Your task to perform on an android device: toggle location history Image 0: 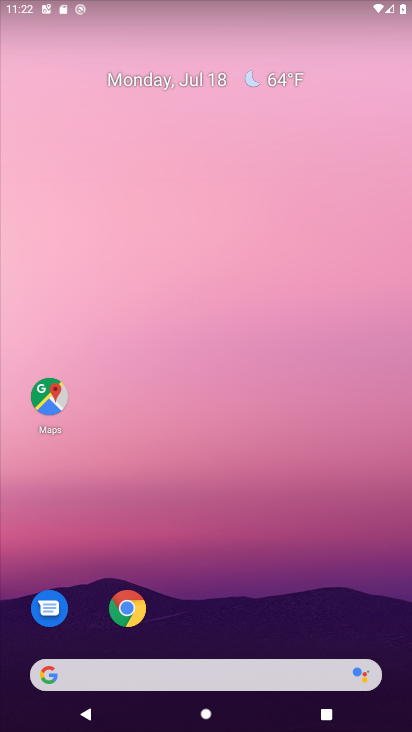
Step 0: drag from (275, 340) to (334, 23)
Your task to perform on an android device: toggle location history Image 1: 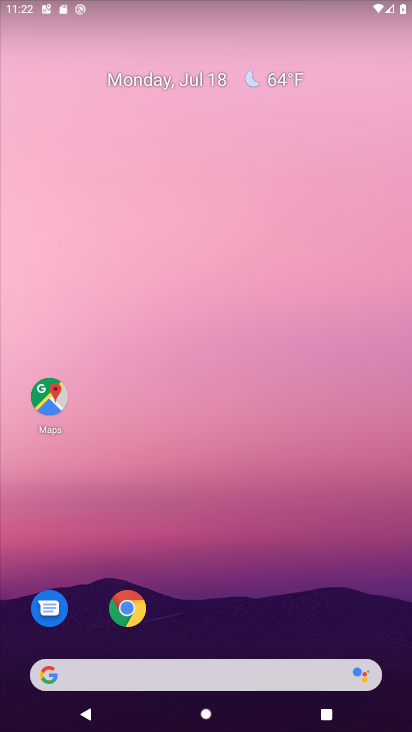
Step 1: drag from (229, 612) to (263, 36)
Your task to perform on an android device: toggle location history Image 2: 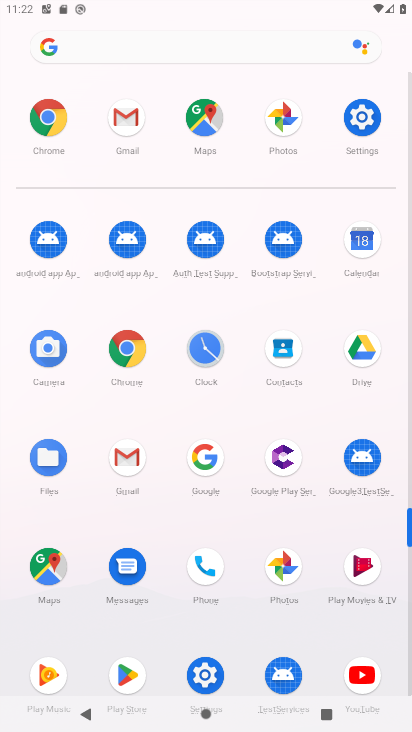
Step 2: drag from (262, 209) to (285, 313)
Your task to perform on an android device: toggle location history Image 3: 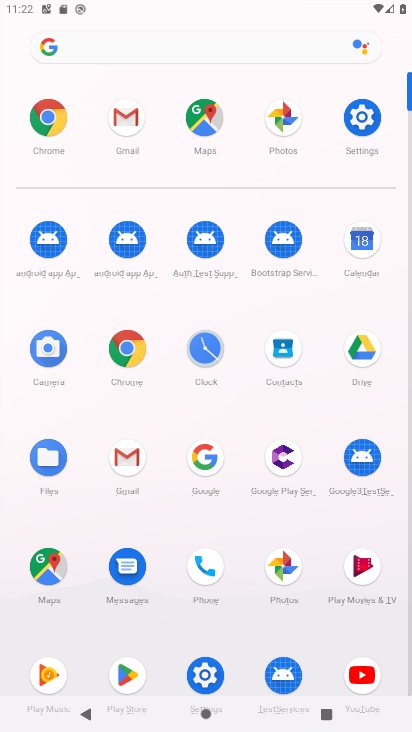
Step 3: click (369, 133)
Your task to perform on an android device: toggle location history Image 4: 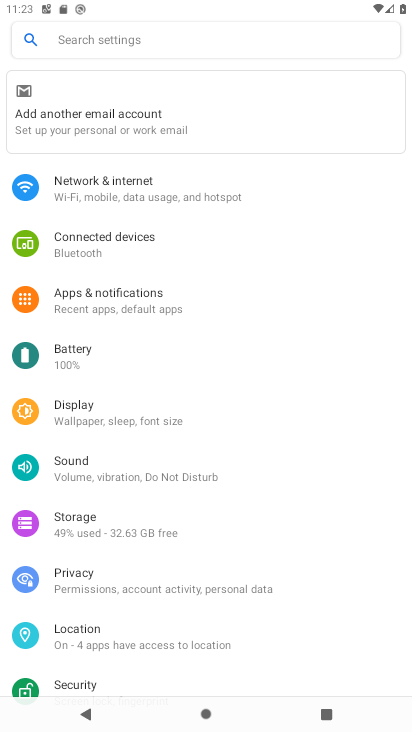
Step 4: click (107, 639)
Your task to perform on an android device: toggle location history Image 5: 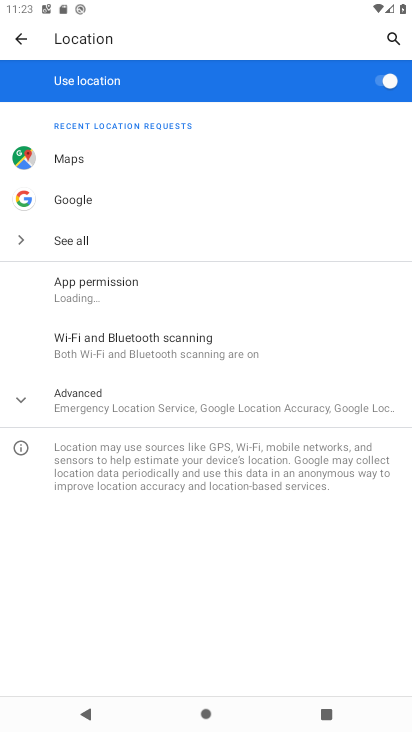
Step 5: click (209, 409)
Your task to perform on an android device: toggle location history Image 6: 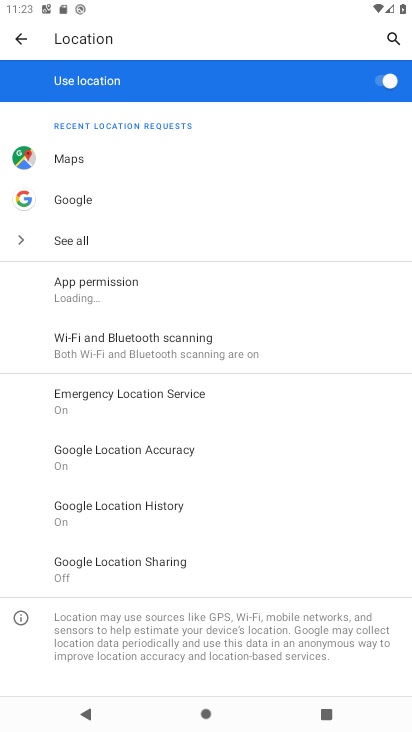
Step 6: drag from (209, 456) to (353, 251)
Your task to perform on an android device: toggle location history Image 7: 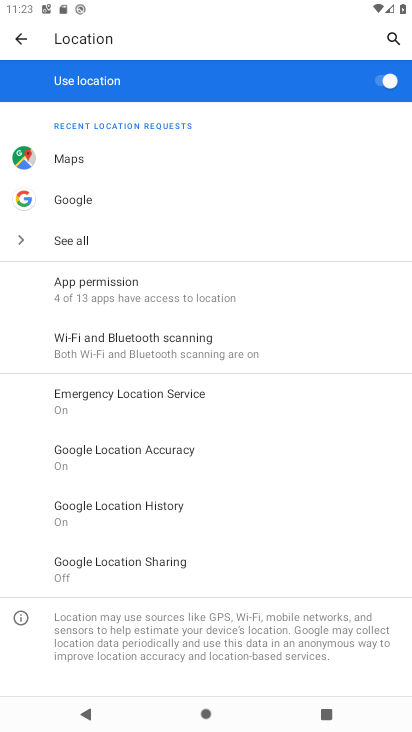
Step 7: click (186, 519)
Your task to perform on an android device: toggle location history Image 8: 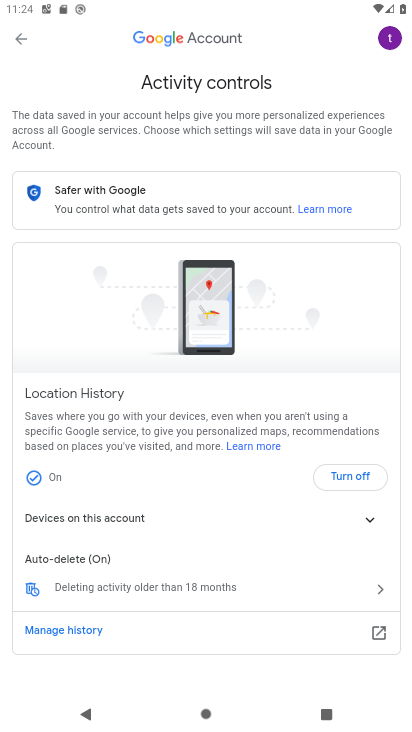
Step 8: click (353, 472)
Your task to perform on an android device: toggle location history Image 9: 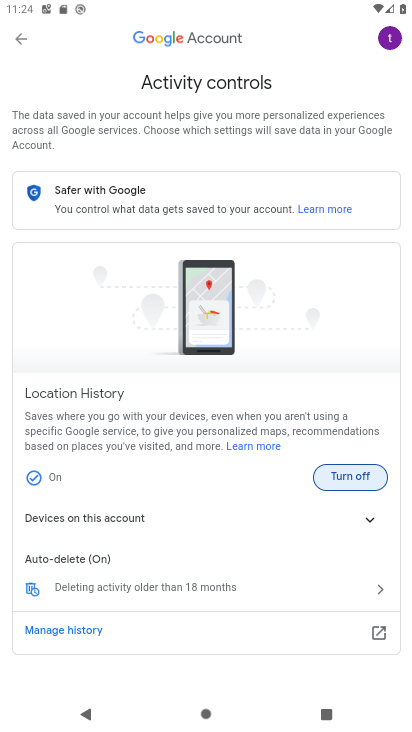
Step 9: click (380, 479)
Your task to perform on an android device: toggle location history Image 10: 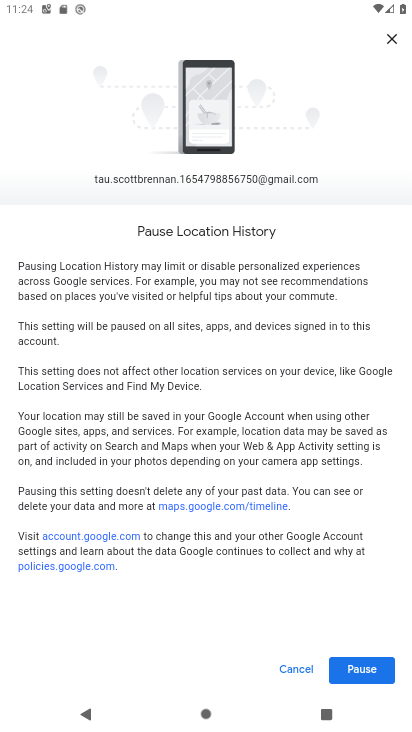
Step 10: drag from (308, 571) to (258, 179)
Your task to perform on an android device: toggle location history Image 11: 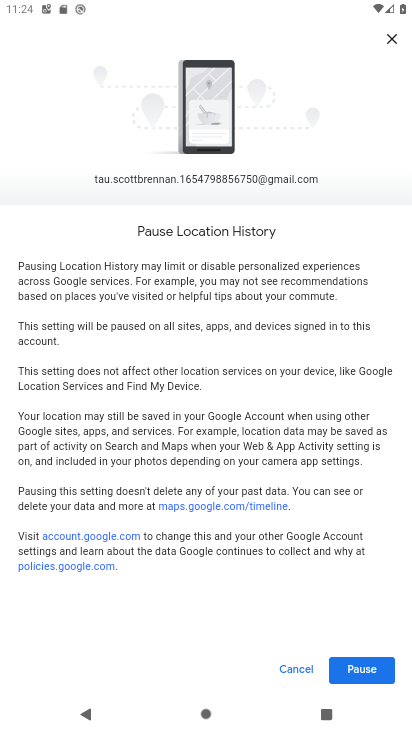
Step 11: click (375, 661)
Your task to perform on an android device: toggle location history Image 12: 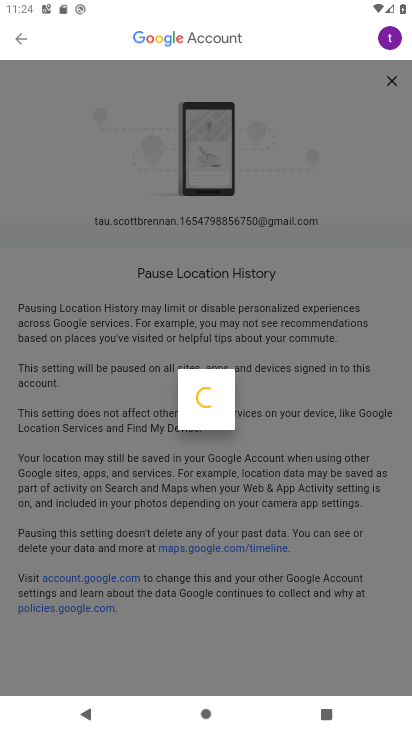
Step 12: click (371, 668)
Your task to perform on an android device: toggle location history Image 13: 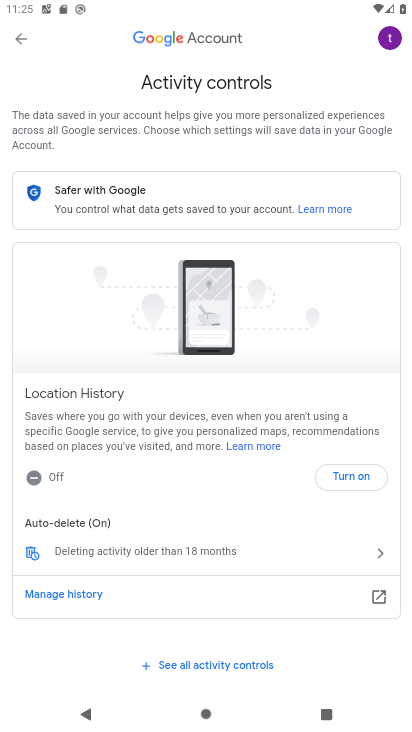
Step 13: click (278, 107)
Your task to perform on an android device: toggle location history Image 14: 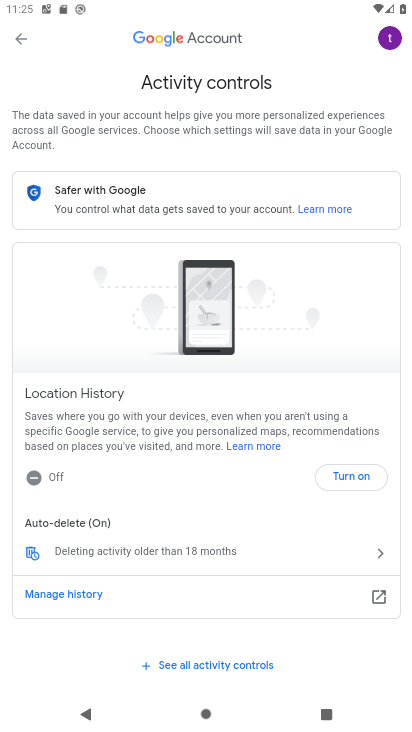
Step 14: task complete